Your task to perform on an android device: Go to Yahoo.com Image 0: 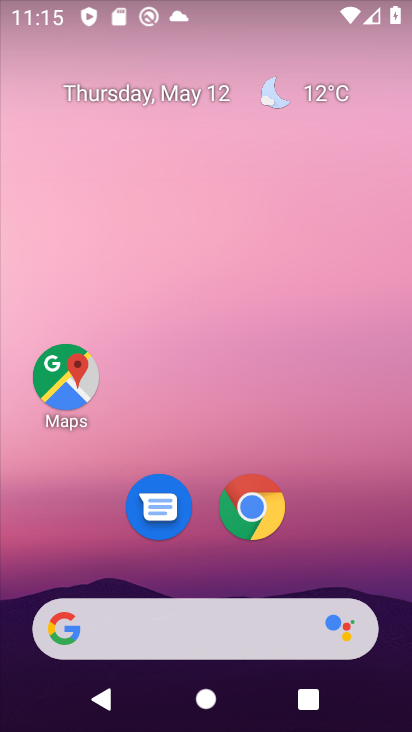
Step 0: click (240, 518)
Your task to perform on an android device: Go to Yahoo.com Image 1: 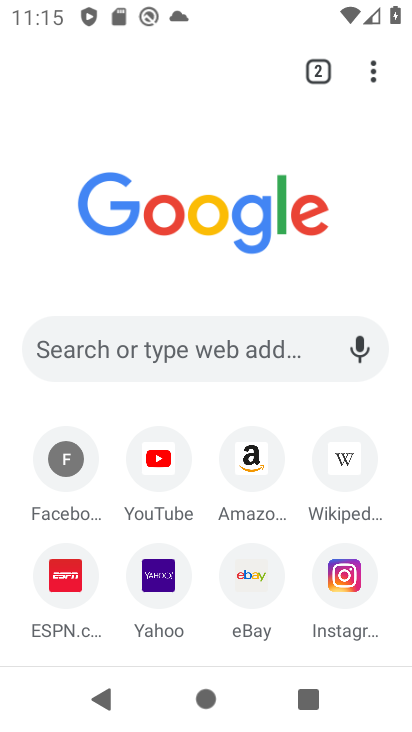
Step 1: click (145, 592)
Your task to perform on an android device: Go to Yahoo.com Image 2: 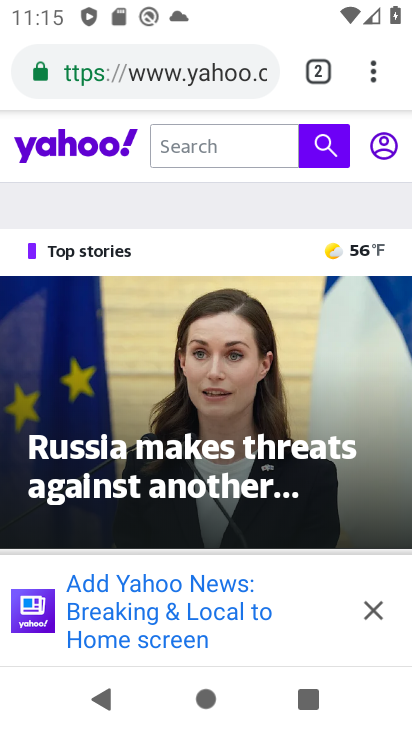
Step 2: task complete